Your task to perform on an android device: Set the phone to "Do not disturb". Image 0: 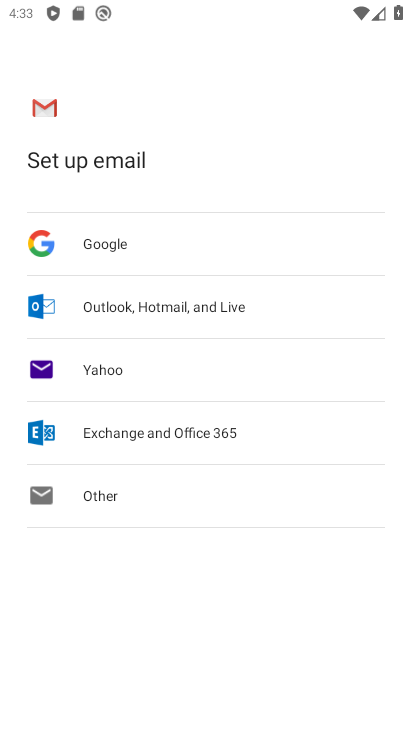
Step 0: press back button
Your task to perform on an android device: Set the phone to "Do not disturb". Image 1: 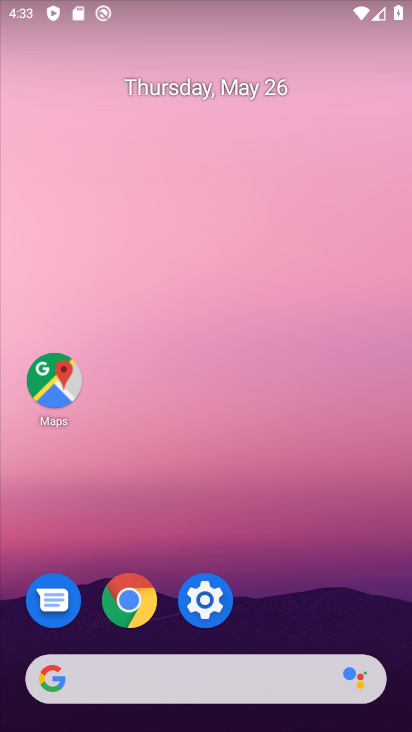
Step 1: drag from (245, 447) to (188, 77)
Your task to perform on an android device: Set the phone to "Do not disturb". Image 2: 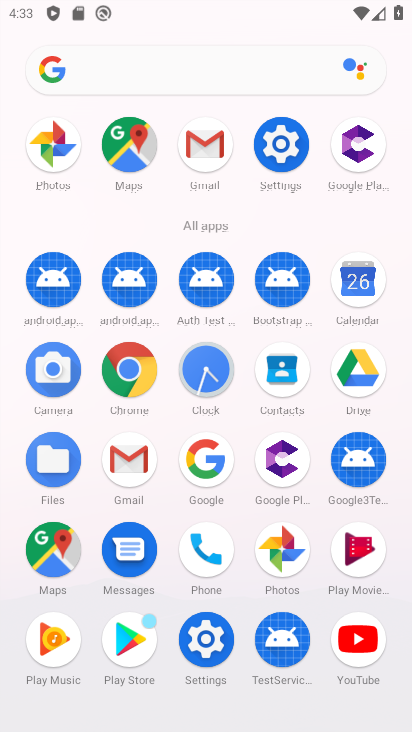
Step 2: click (275, 149)
Your task to perform on an android device: Set the phone to "Do not disturb". Image 3: 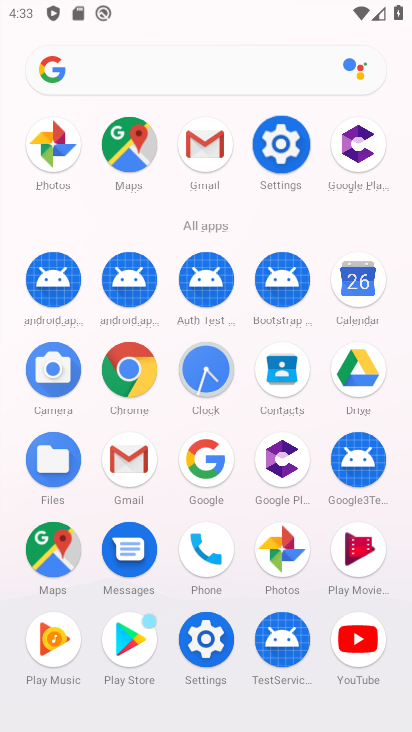
Step 3: click (276, 146)
Your task to perform on an android device: Set the phone to "Do not disturb". Image 4: 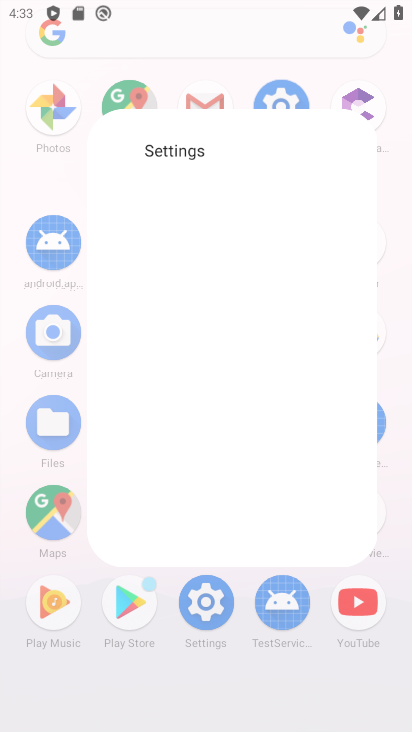
Step 4: click (276, 146)
Your task to perform on an android device: Set the phone to "Do not disturb". Image 5: 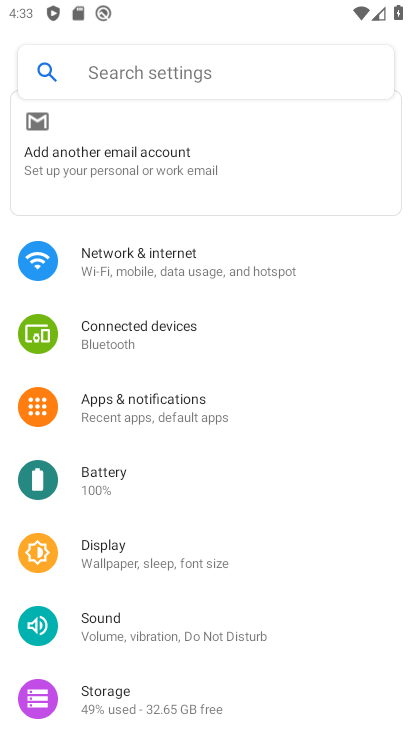
Step 5: click (122, 634)
Your task to perform on an android device: Set the phone to "Do not disturb". Image 6: 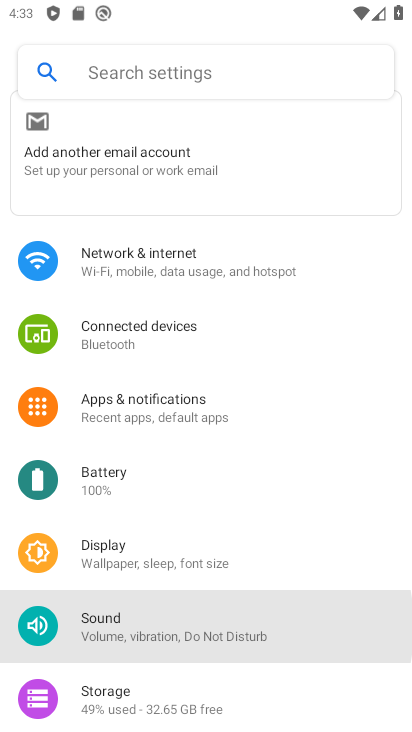
Step 6: click (122, 633)
Your task to perform on an android device: Set the phone to "Do not disturb". Image 7: 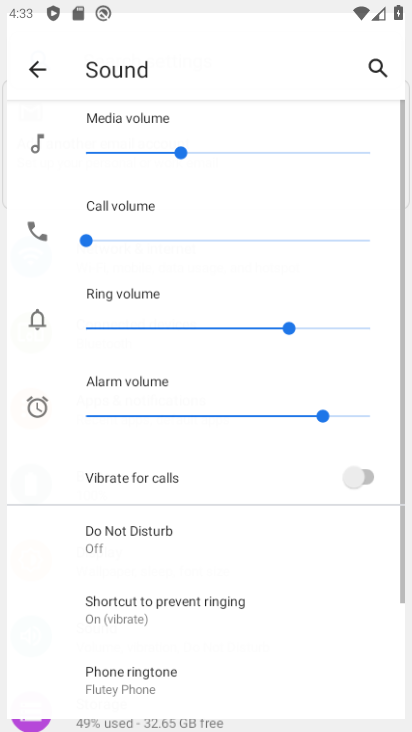
Step 7: click (122, 633)
Your task to perform on an android device: Set the phone to "Do not disturb". Image 8: 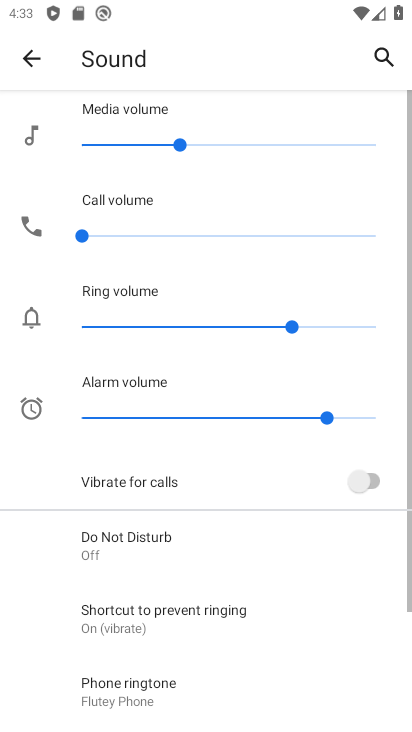
Step 8: click (122, 633)
Your task to perform on an android device: Set the phone to "Do not disturb". Image 9: 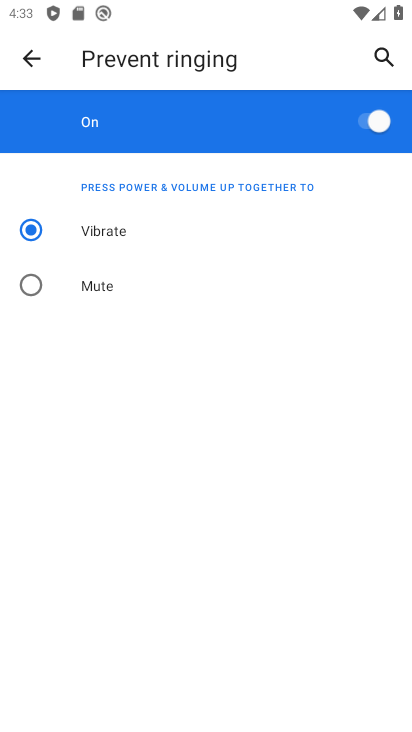
Step 9: click (32, 57)
Your task to perform on an android device: Set the phone to "Do not disturb". Image 10: 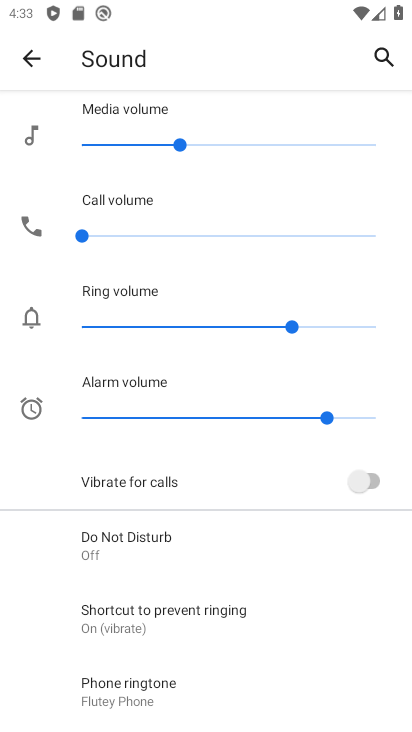
Step 10: click (99, 534)
Your task to perform on an android device: Set the phone to "Do not disturb". Image 11: 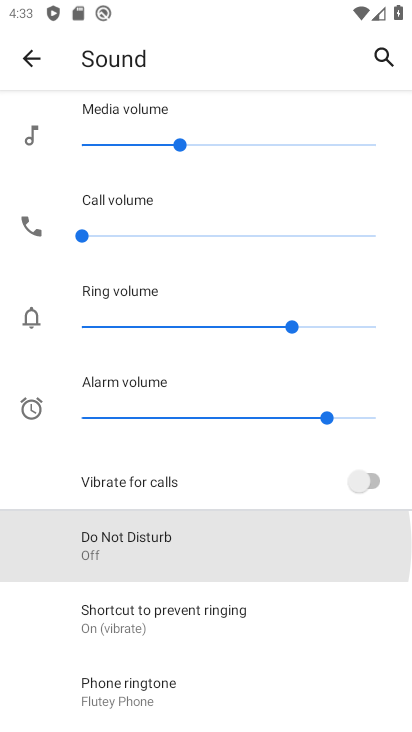
Step 11: click (99, 534)
Your task to perform on an android device: Set the phone to "Do not disturb". Image 12: 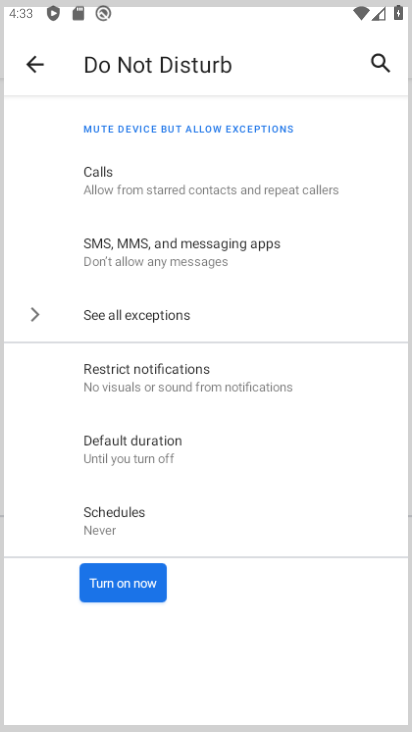
Step 12: click (99, 534)
Your task to perform on an android device: Set the phone to "Do not disturb". Image 13: 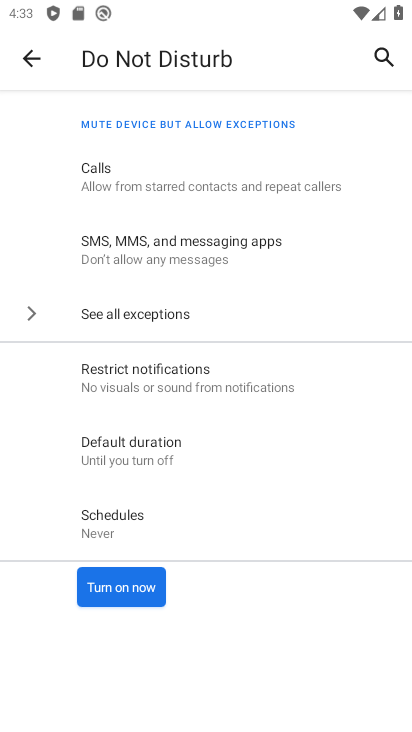
Step 13: click (99, 534)
Your task to perform on an android device: Set the phone to "Do not disturb". Image 14: 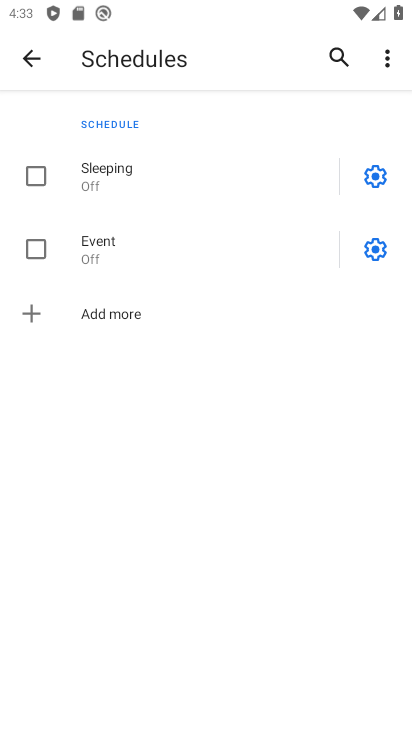
Step 14: click (25, 55)
Your task to perform on an android device: Set the phone to "Do not disturb". Image 15: 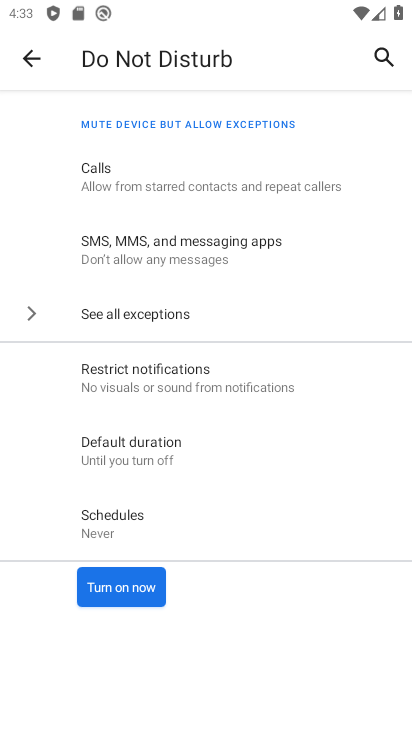
Step 15: click (126, 588)
Your task to perform on an android device: Set the phone to "Do not disturb". Image 16: 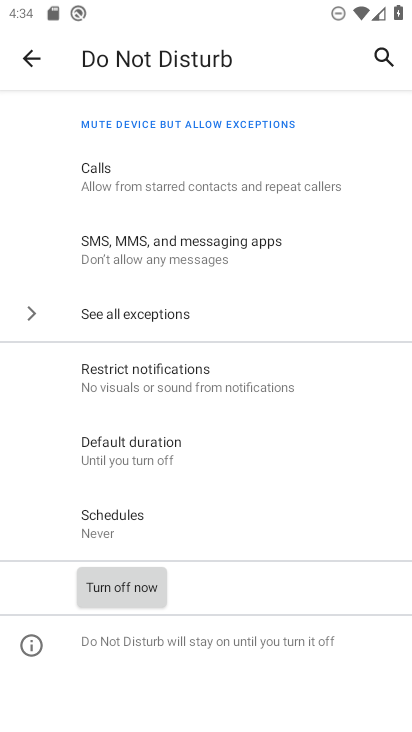
Step 16: task complete